Your task to perform on an android device: Check the weather Image 0: 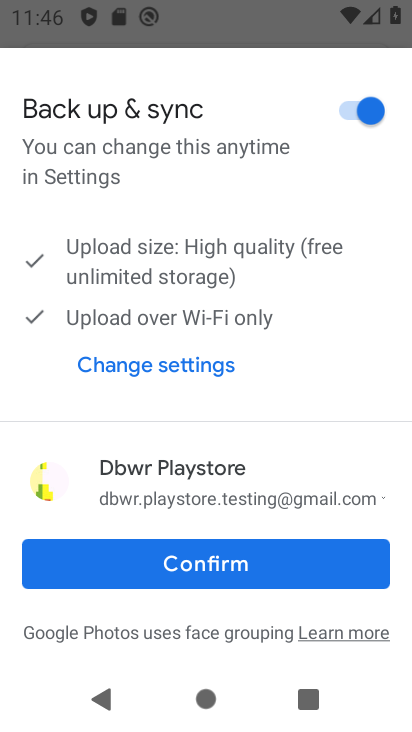
Step 0: press home button
Your task to perform on an android device: Check the weather Image 1: 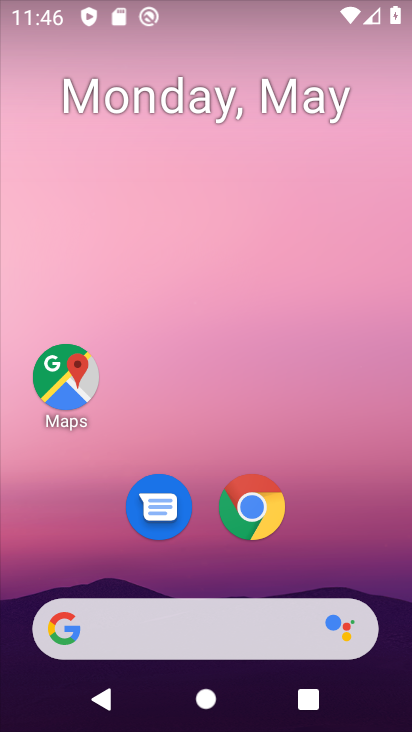
Step 1: drag from (233, 628) to (158, 80)
Your task to perform on an android device: Check the weather Image 2: 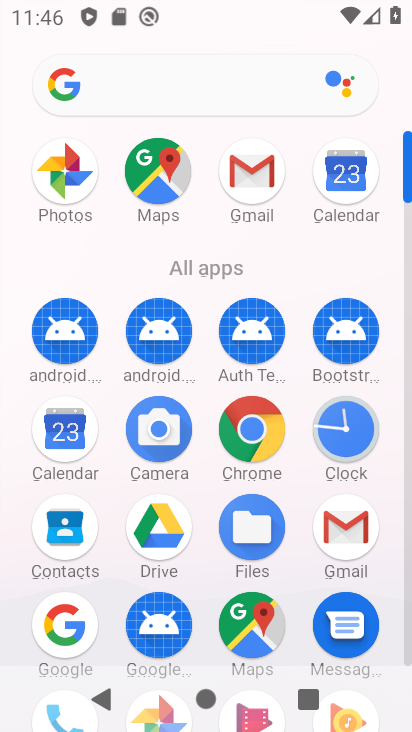
Step 2: click (71, 607)
Your task to perform on an android device: Check the weather Image 3: 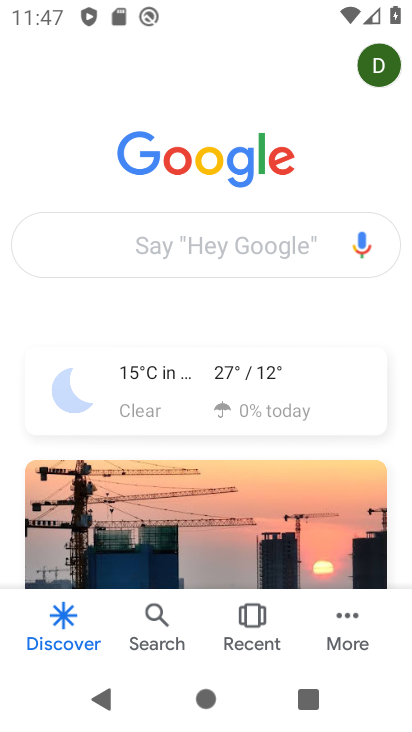
Step 3: click (86, 380)
Your task to perform on an android device: Check the weather Image 4: 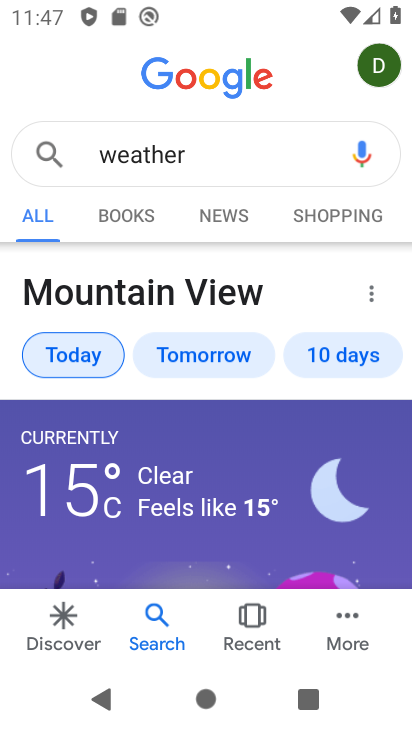
Step 4: task complete